Your task to perform on an android device: Open settings Image 0: 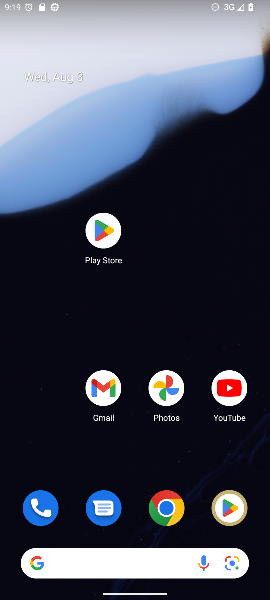
Step 0: drag from (145, 511) to (127, 52)
Your task to perform on an android device: Open settings Image 1: 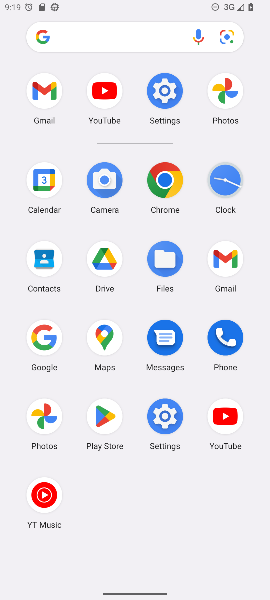
Step 1: click (163, 78)
Your task to perform on an android device: Open settings Image 2: 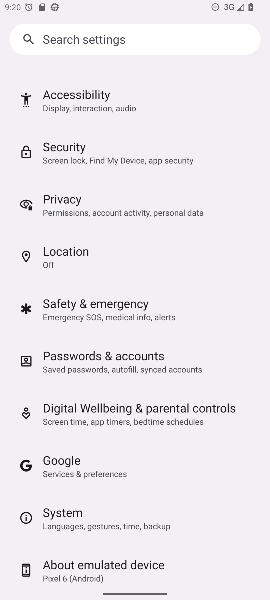
Step 2: task complete